Your task to perform on an android device: Open Wikipedia Image 0: 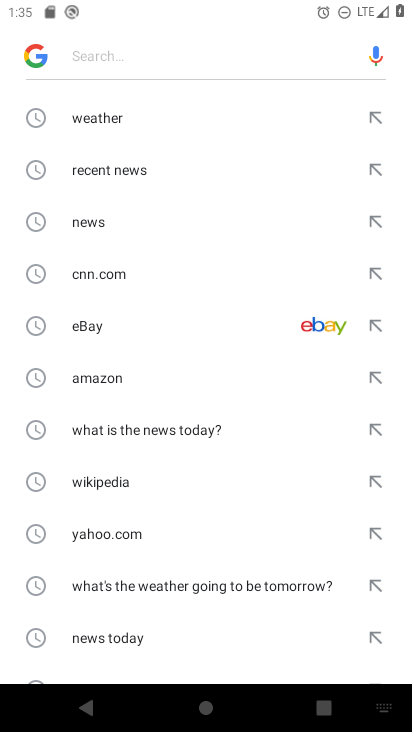
Step 0: press home button
Your task to perform on an android device: Open Wikipedia Image 1: 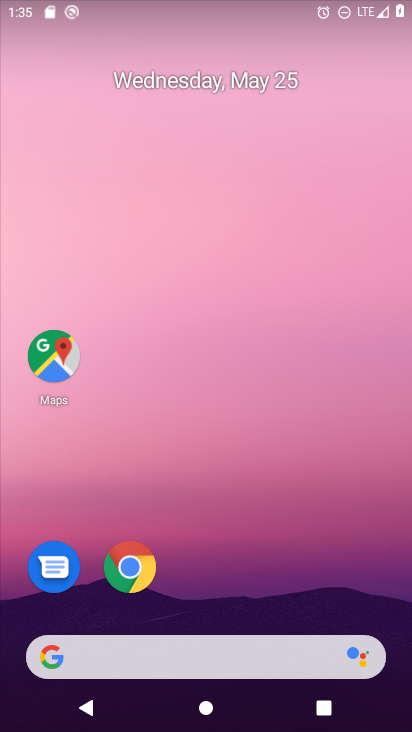
Step 1: click (126, 564)
Your task to perform on an android device: Open Wikipedia Image 2: 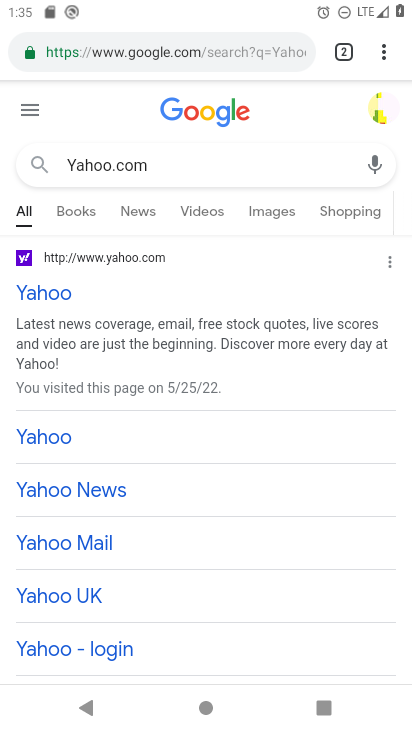
Step 2: click (301, 50)
Your task to perform on an android device: Open Wikipedia Image 3: 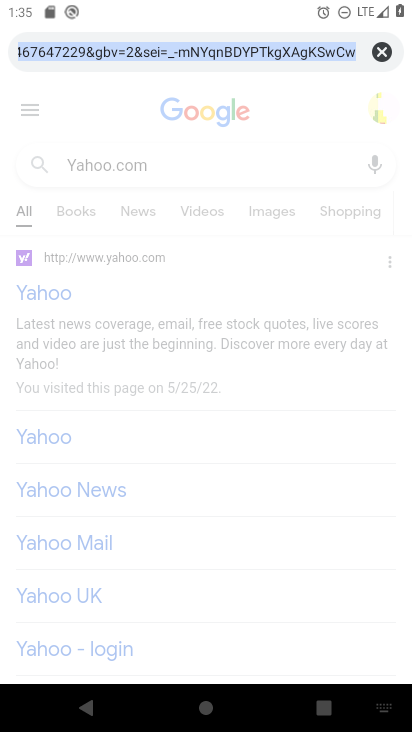
Step 3: click (373, 49)
Your task to perform on an android device: Open Wikipedia Image 4: 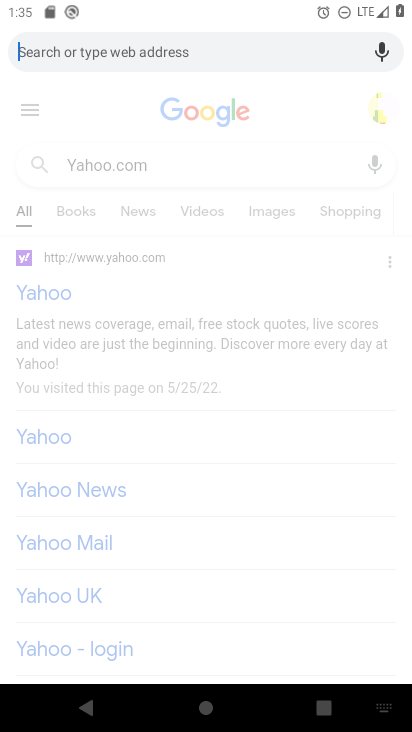
Step 4: type "Wikipedia"
Your task to perform on an android device: Open Wikipedia Image 5: 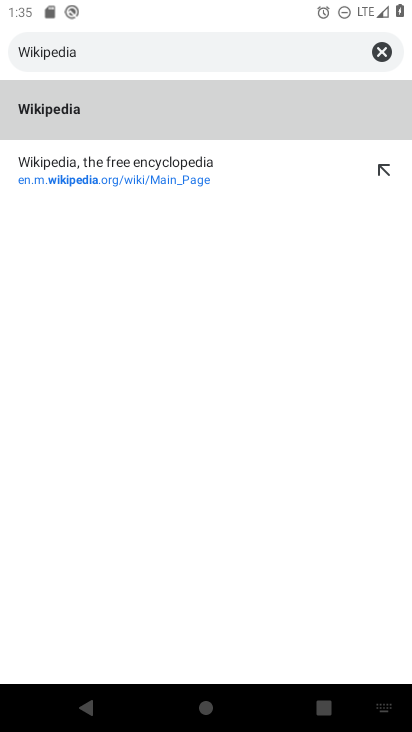
Step 5: click (107, 162)
Your task to perform on an android device: Open Wikipedia Image 6: 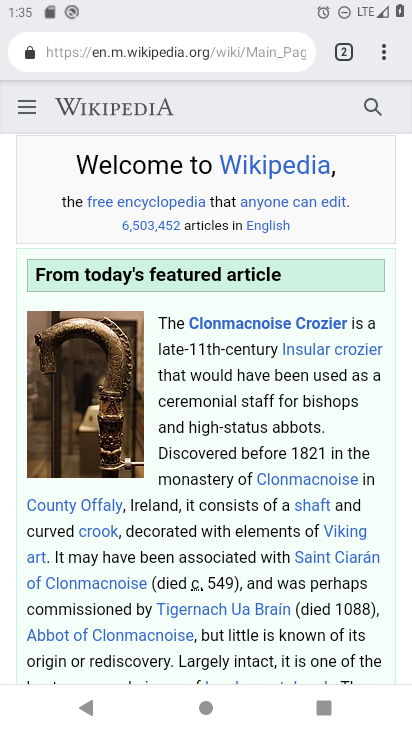
Step 6: task complete